Your task to perform on an android device: turn on wifi Image 0: 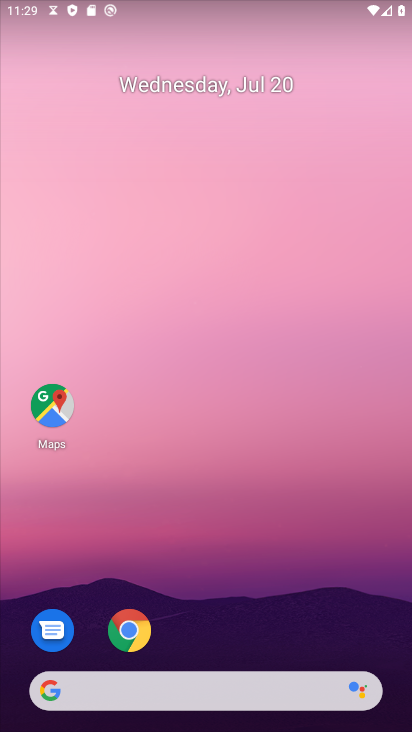
Step 0: drag from (12, 700) to (238, 96)
Your task to perform on an android device: turn on wifi Image 1: 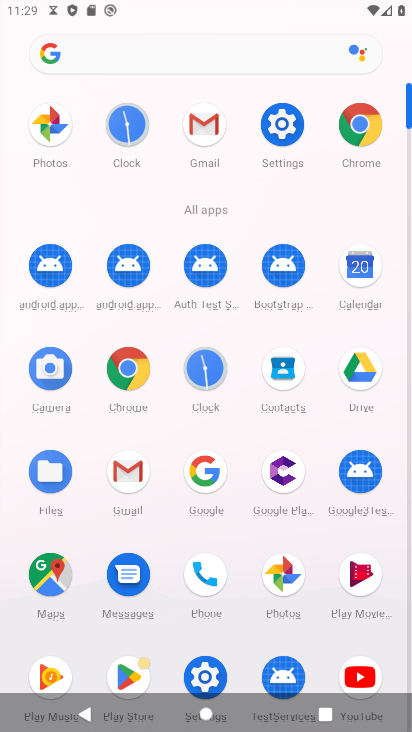
Step 1: click (208, 667)
Your task to perform on an android device: turn on wifi Image 2: 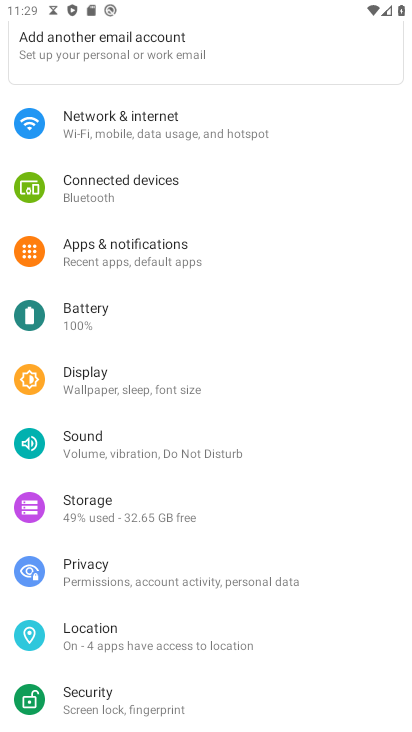
Step 2: click (183, 128)
Your task to perform on an android device: turn on wifi Image 3: 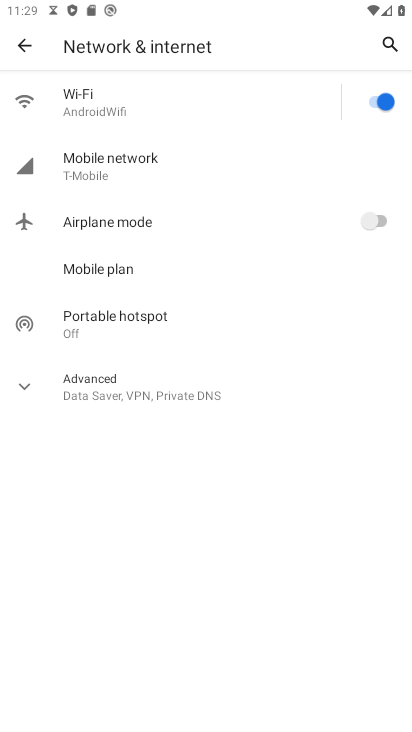
Step 3: task complete